Your task to perform on an android device: Open Wikipedia Image 0: 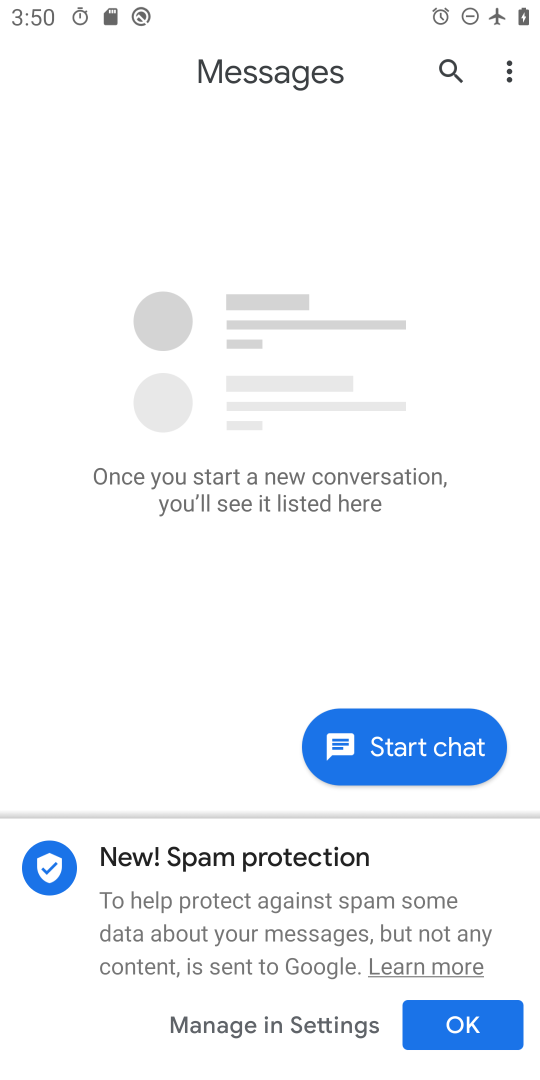
Step 0: press home button
Your task to perform on an android device: Open Wikipedia Image 1: 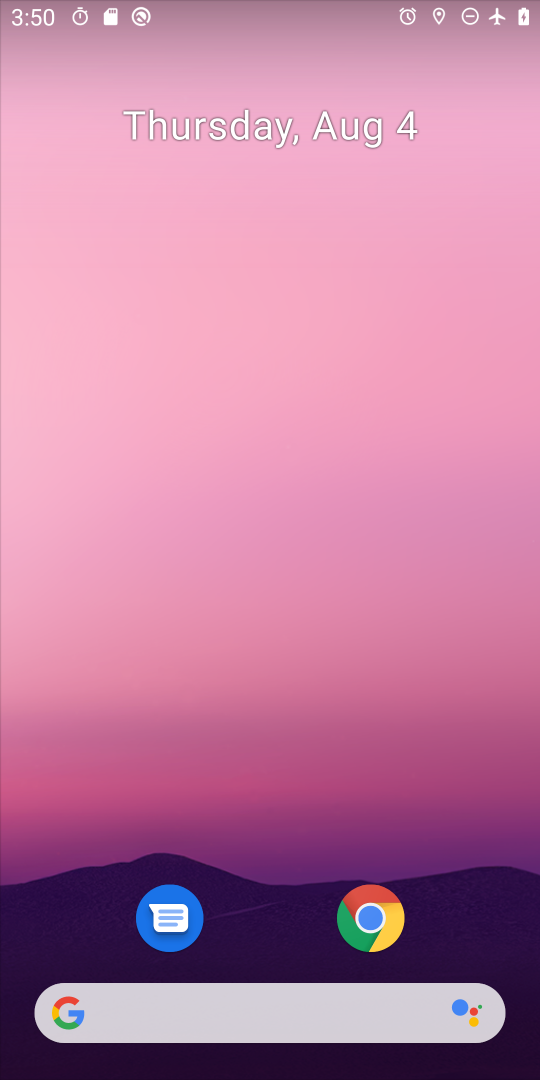
Step 1: click (372, 923)
Your task to perform on an android device: Open Wikipedia Image 2: 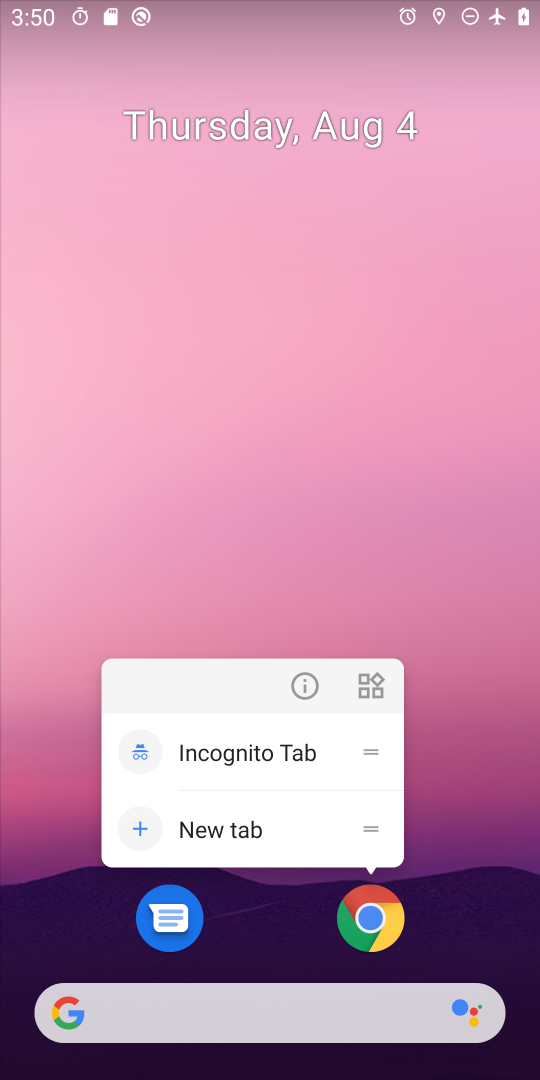
Step 2: click (372, 923)
Your task to perform on an android device: Open Wikipedia Image 3: 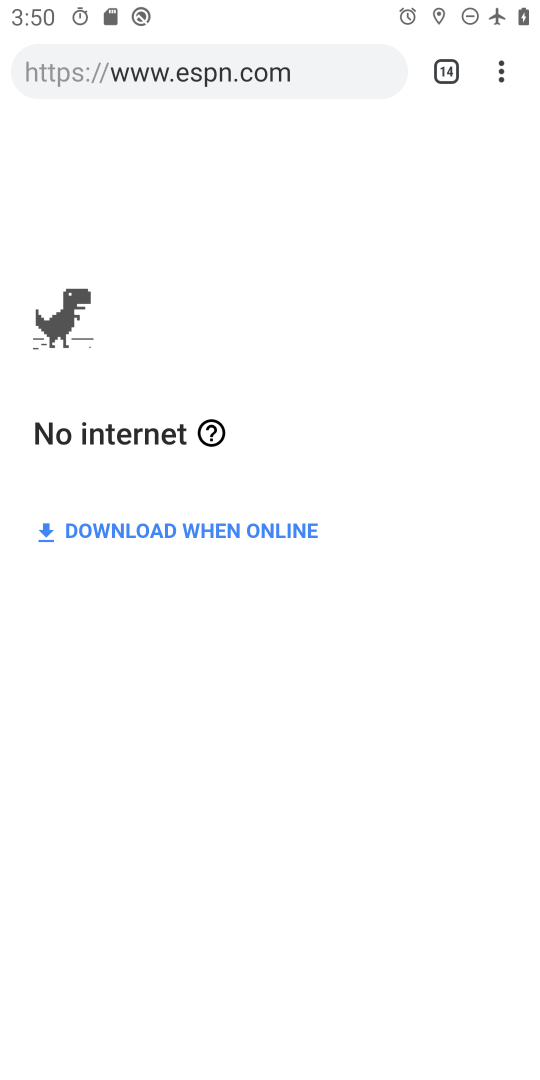
Step 3: click (438, 64)
Your task to perform on an android device: Open Wikipedia Image 4: 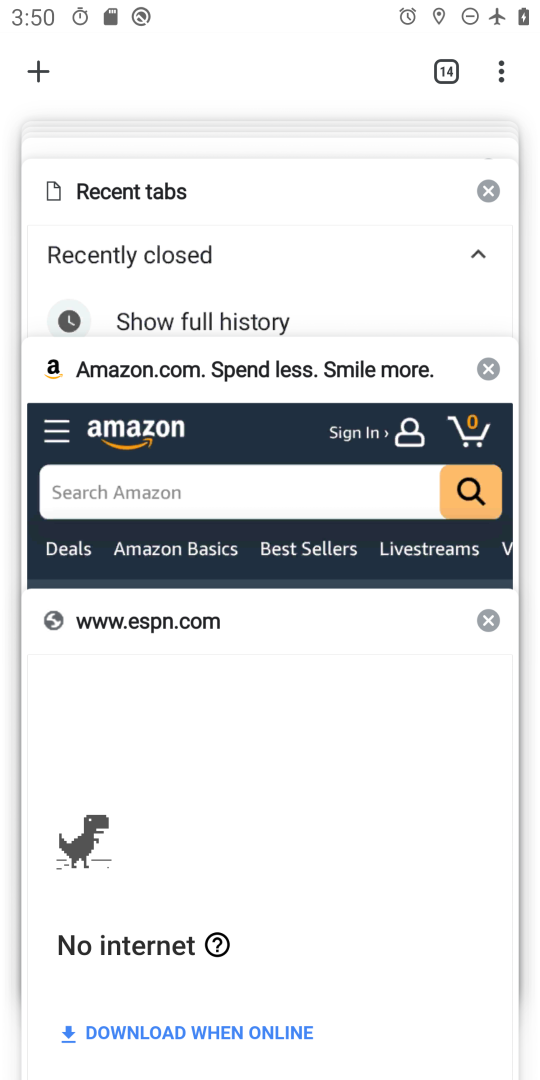
Step 4: click (16, 68)
Your task to perform on an android device: Open Wikipedia Image 5: 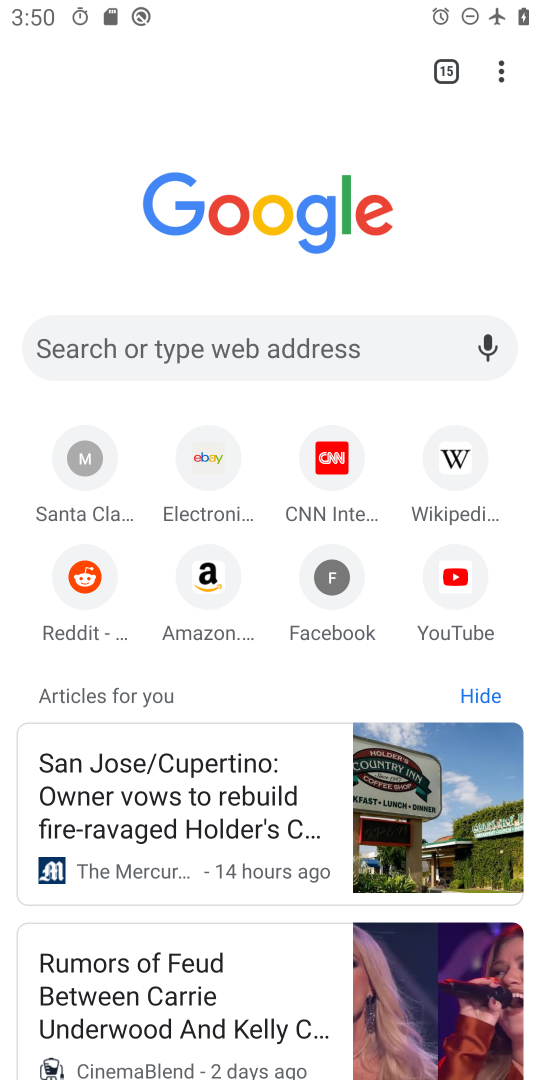
Step 5: click (434, 462)
Your task to perform on an android device: Open Wikipedia Image 6: 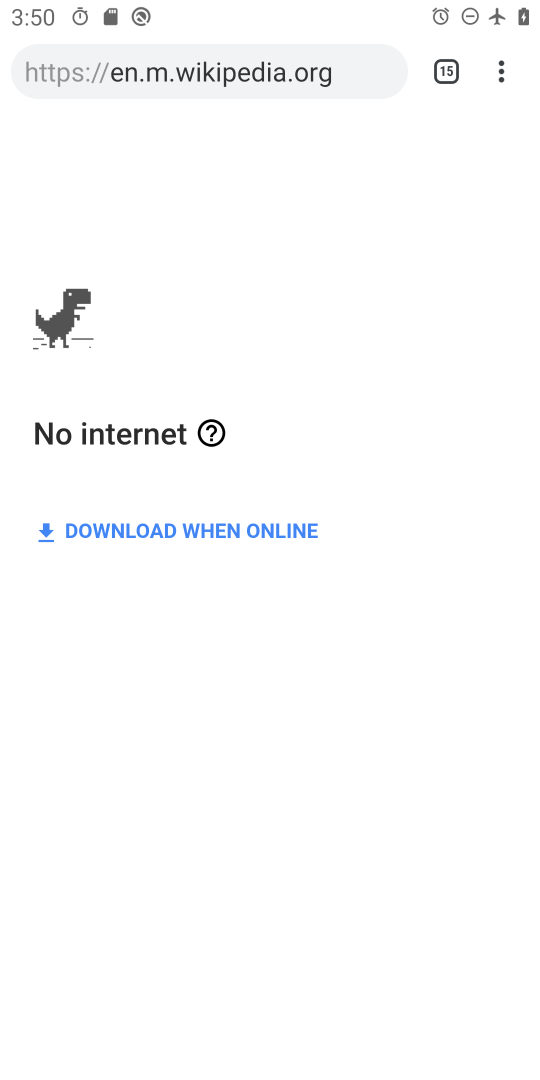
Step 6: task complete